Your task to perform on an android device: Set the phone to "Do not disturb". Image 0: 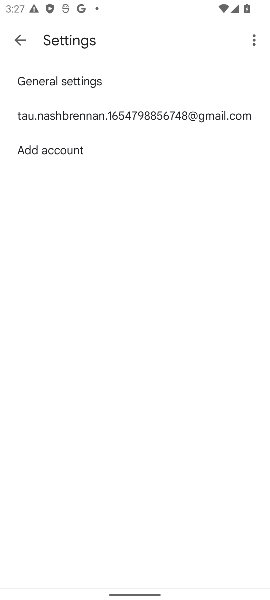
Step 0: press back button
Your task to perform on an android device: Set the phone to "Do not disturb". Image 1: 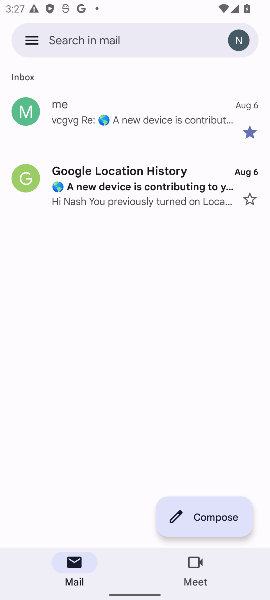
Step 1: press home button
Your task to perform on an android device: Set the phone to "Do not disturb". Image 2: 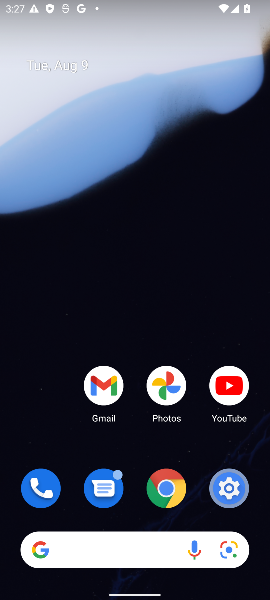
Step 2: click (224, 466)
Your task to perform on an android device: Set the phone to "Do not disturb". Image 3: 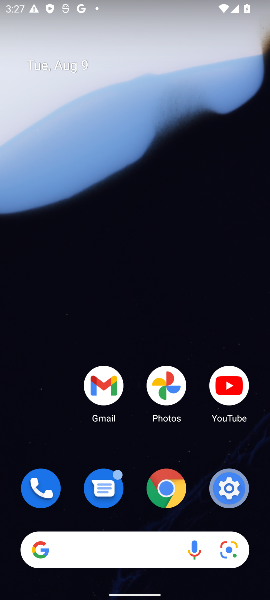
Step 3: click (232, 480)
Your task to perform on an android device: Set the phone to "Do not disturb". Image 4: 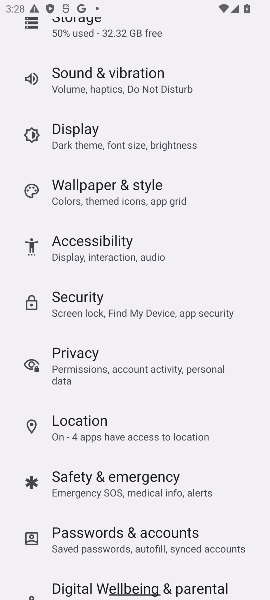
Step 4: click (171, 88)
Your task to perform on an android device: Set the phone to "Do not disturb". Image 5: 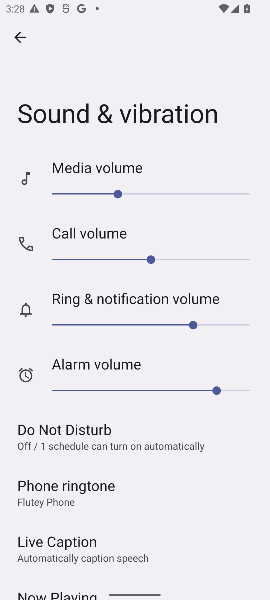
Step 5: click (190, 447)
Your task to perform on an android device: Set the phone to "Do not disturb". Image 6: 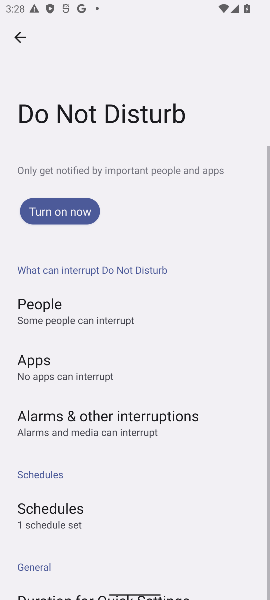
Step 6: click (77, 206)
Your task to perform on an android device: Set the phone to "Do not disturb". Image 7: 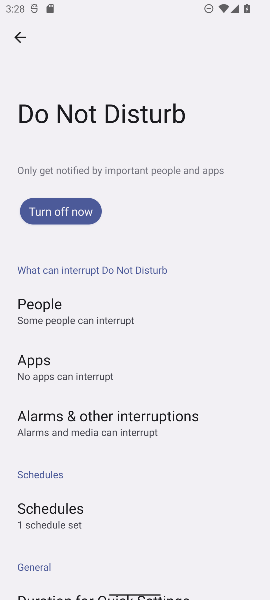
Step 7: task complete